Your task to perform on an android device: Go to Android settings Image 0: 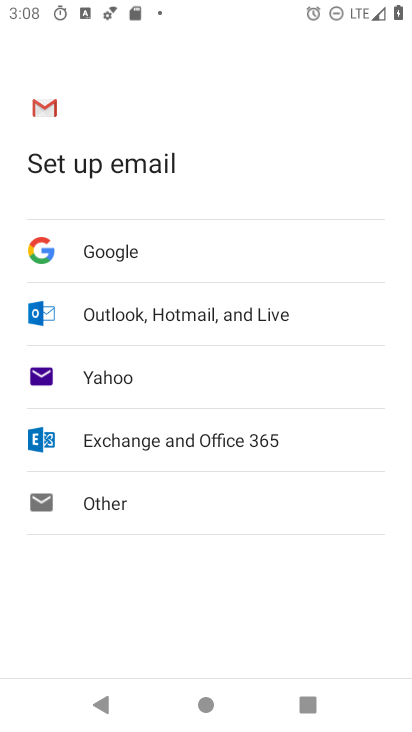
Step 0: press home button
Your task to perform on an android device: Go to Android settings Image 1: 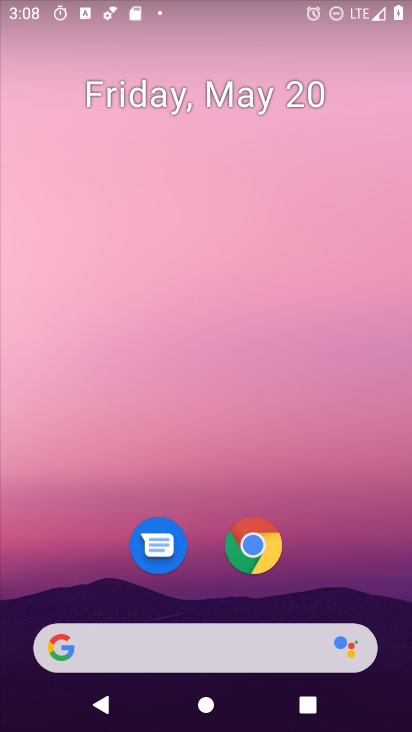
Step 1: drag from (289, 631) to (305, 77)
Your task to perform on an android device: Go to Android settings Image 2: 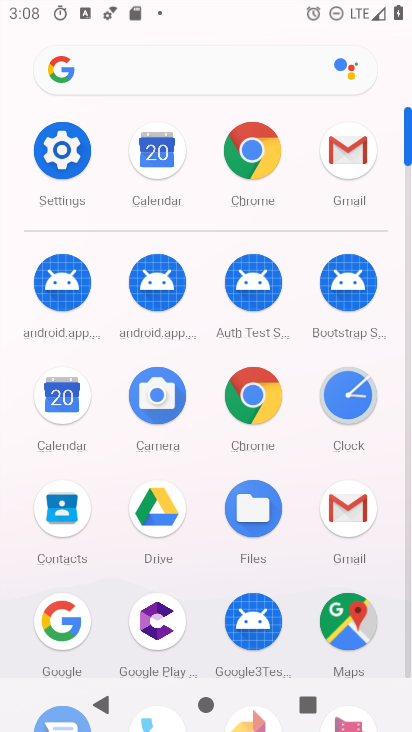
Step 2: click (41, 157)
Your task to perform on an android device: Go to Android settings Image 3: 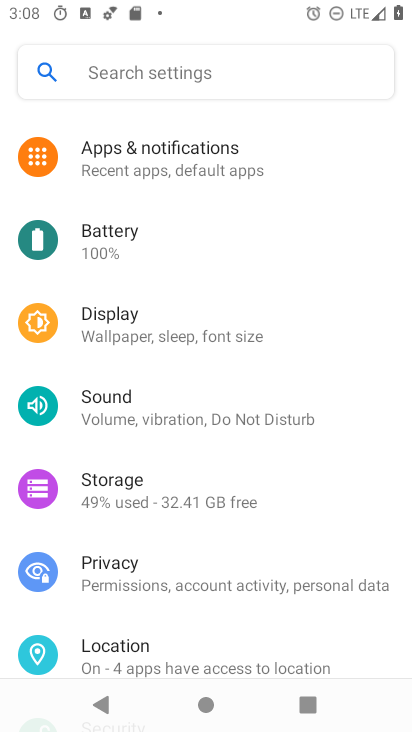
Step 3: drag from (287, 649) to (267, 106)
Your task to perform on an android device: Go to Android settings Image 4: 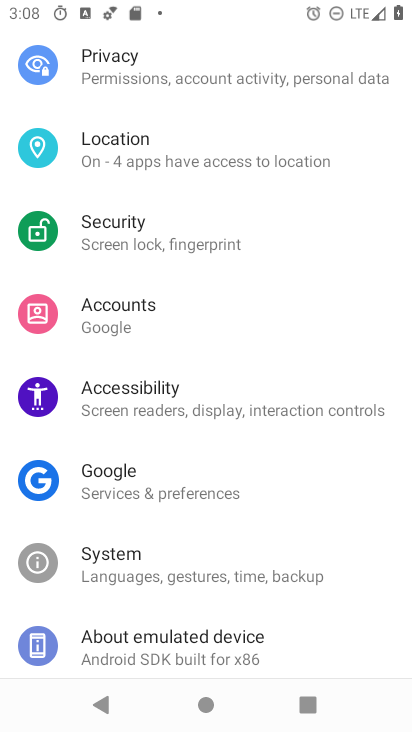
Step 4: drag from (246, 614) to (247, 348)
Your task to perform on an android device: Go to Android settings Image 5: 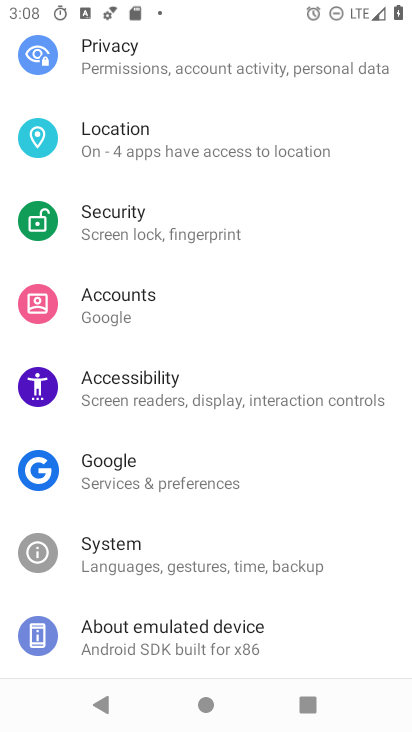
Step 5: click (232, 638)
Your task to perform on an android device: Go to Android settings Image 6: 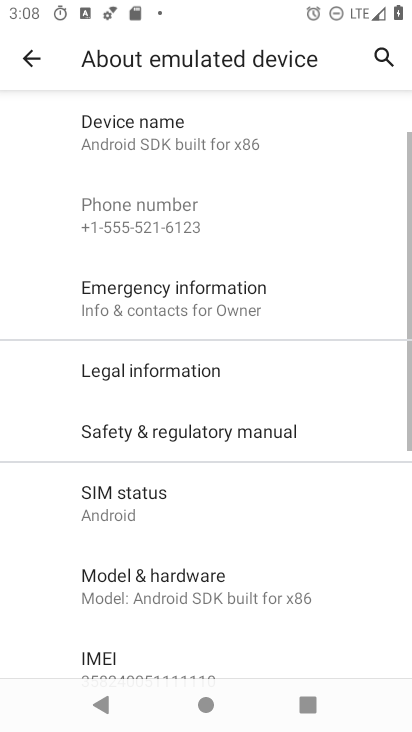
Step 6: drag from (232, 638) to (289, 226)
Your task to perform on an android device: Go to Android settings Image 7: 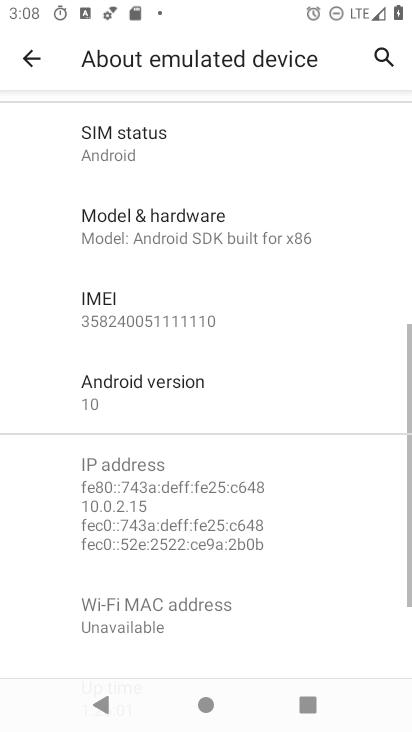
Step 7: click (232, 385)
Your task to perform on an android device: Go to Android settings Image 8: 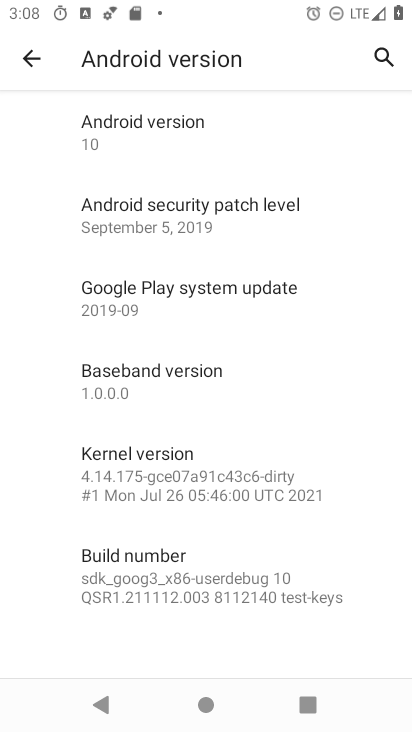
Step 8: task complete